Your task to perform on an android device: open wifi settings Image 0: 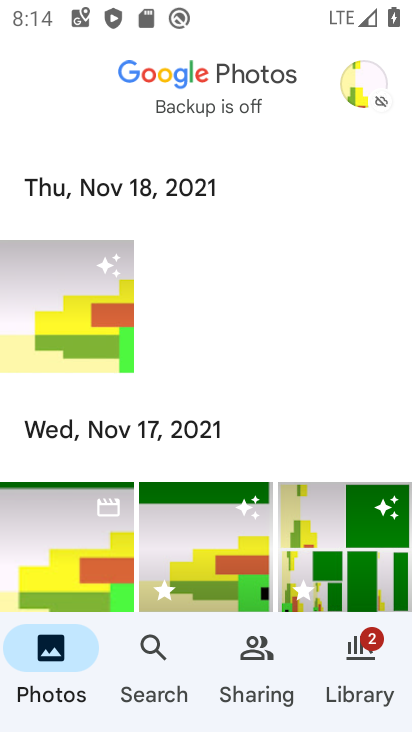
Step 0: press home button
Your task to perform on an android device: open wifi settings Image 1: 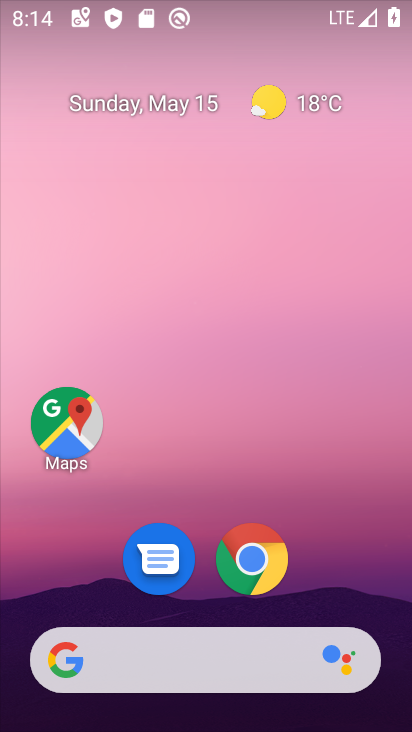
Step 1: drag from (305, 503) to (162, 36)
Your task to perform on an android device: open wifi settings Image 2: 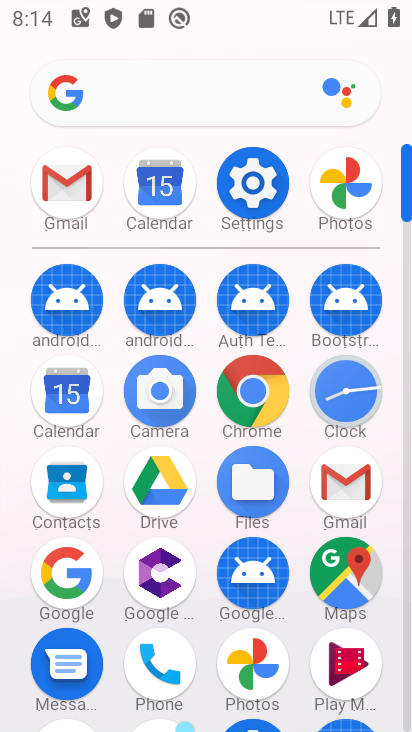
Step 2: click (251, 186)
Your task to perform on an android device: open wifi settings Image 3: 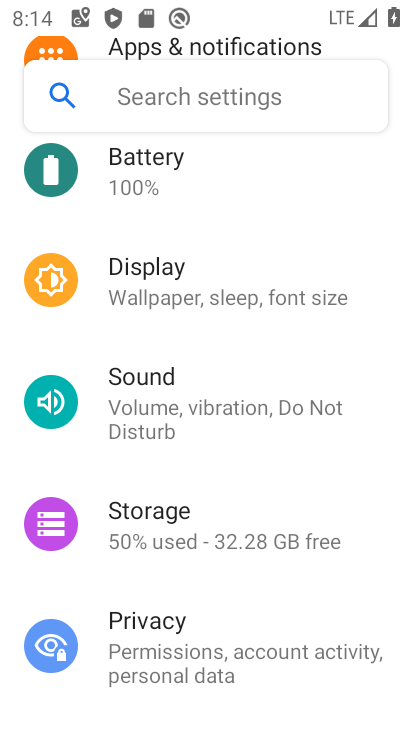
Step 3: drag from (214, 206) to (214, 565)
Your task to perform on an android device: open wifi settings Image 4: 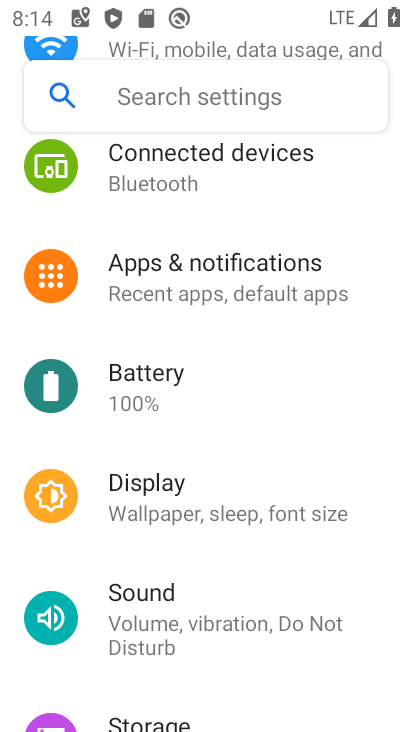
Step 4: drag from (208, 234) to (205, 651)
Your task to perform on an android device: open wifi settings Image 5: 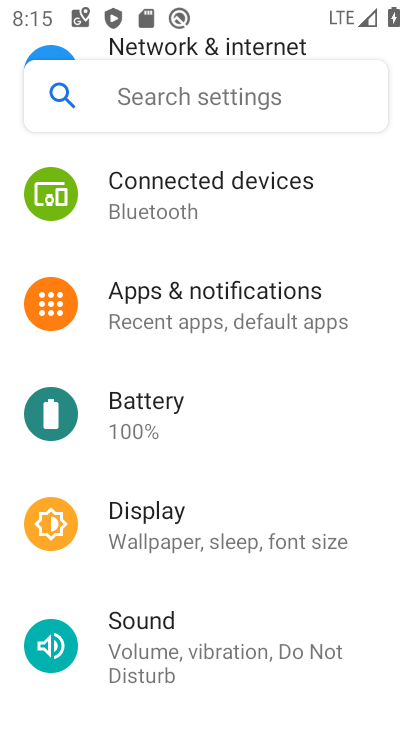
Step 5: drag from (183, 253) to (191, 623)
Your task to perform on an android device: open wifi settings Image 6: 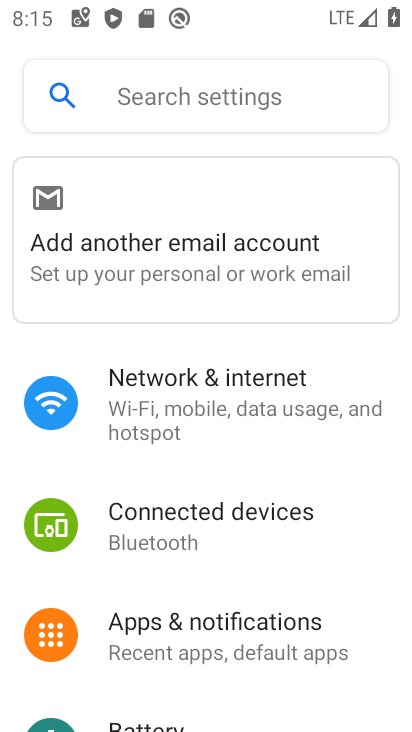
Step 6: click (186, 389)
Your task to perform on an android device: open wifi settings Image 7: 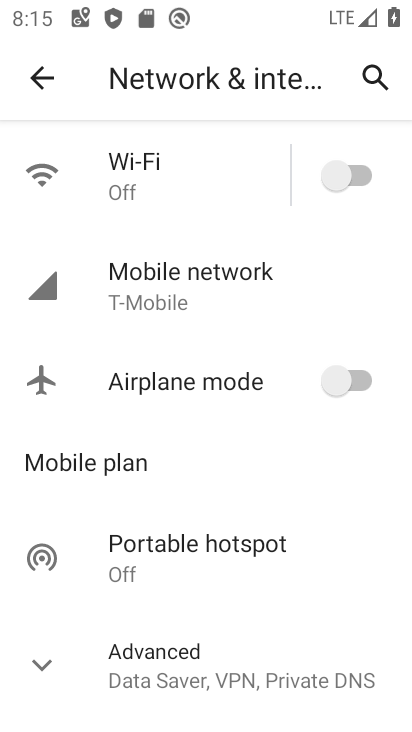
Step 7: click (177, 171)
Your task to perform on an android device: open wifi settings Image 8: 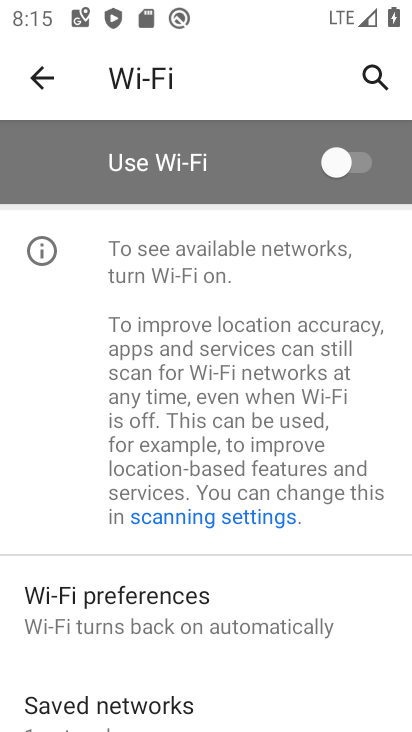
Step 8: task complete